Your task to perform on an android device: change notifications settings Image 0: 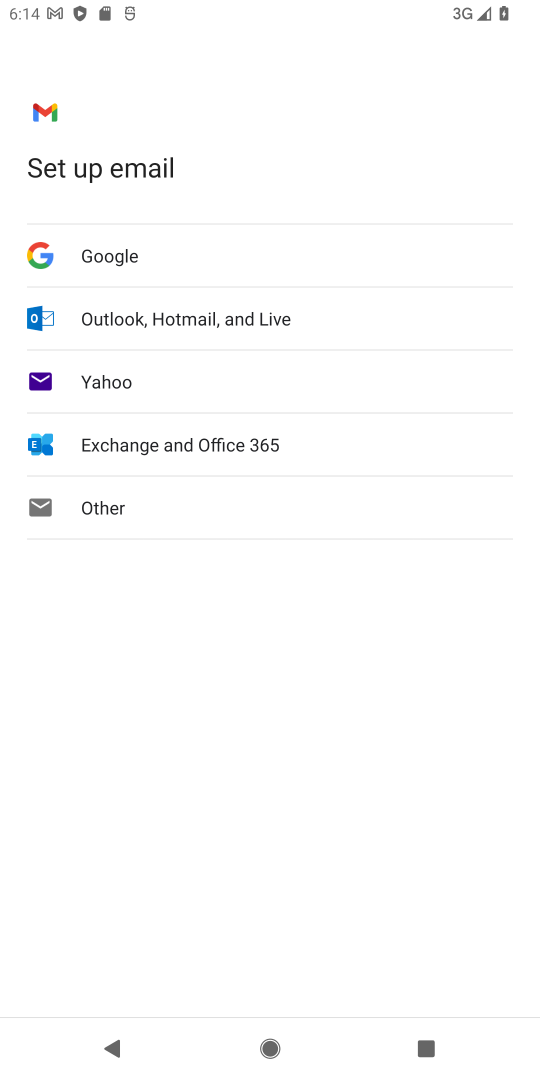
Step 0: press back button
Your task to perform on an android device: change notifications settings Image 1: 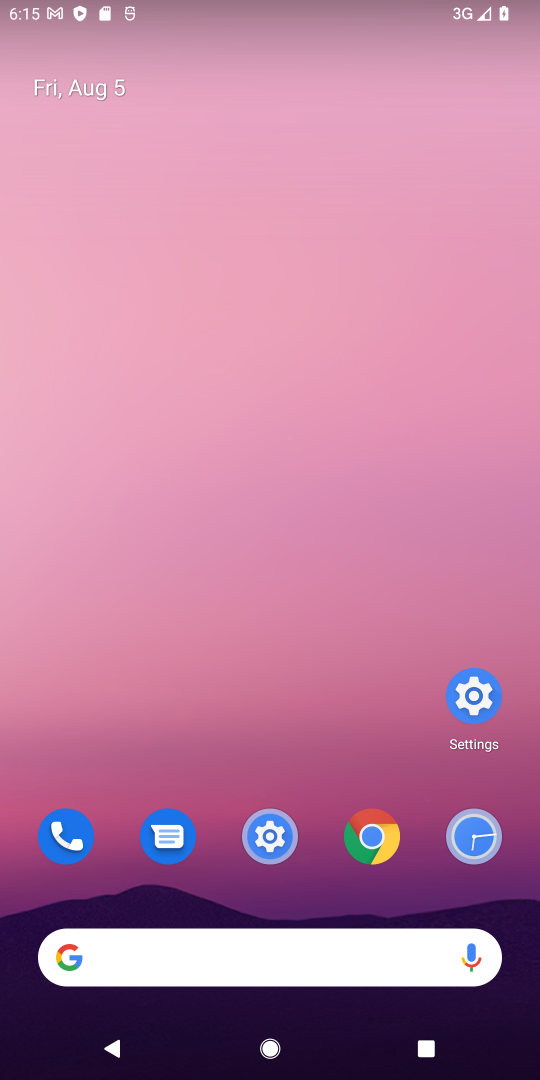
Step 1: drag from (201, 668) to (163, 195)
Your task to perform on an android device: change notifications settings Image 2: 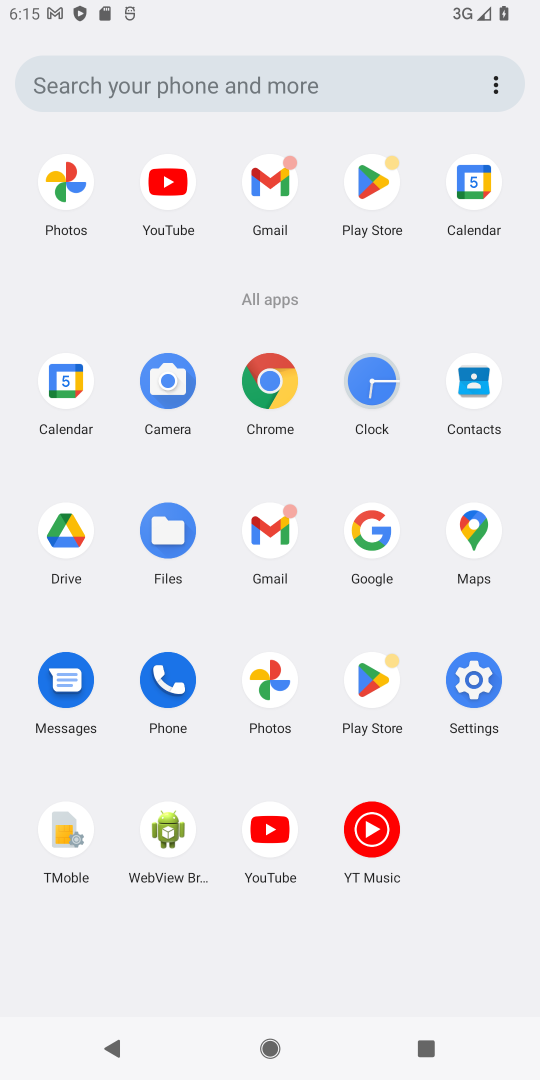
Step 2: drag from (182, 548) to (168, 157)
Your task to perform on an android device: change notifications settings Image 3: 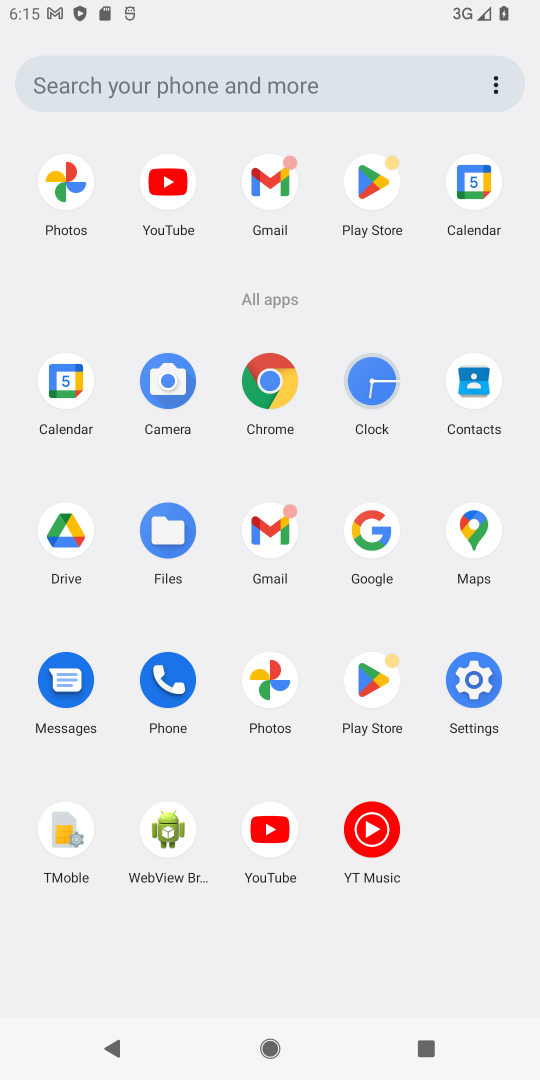
Step 3: click (471, 687)
Your task to perform on an android device: change notifications settings Image 4: 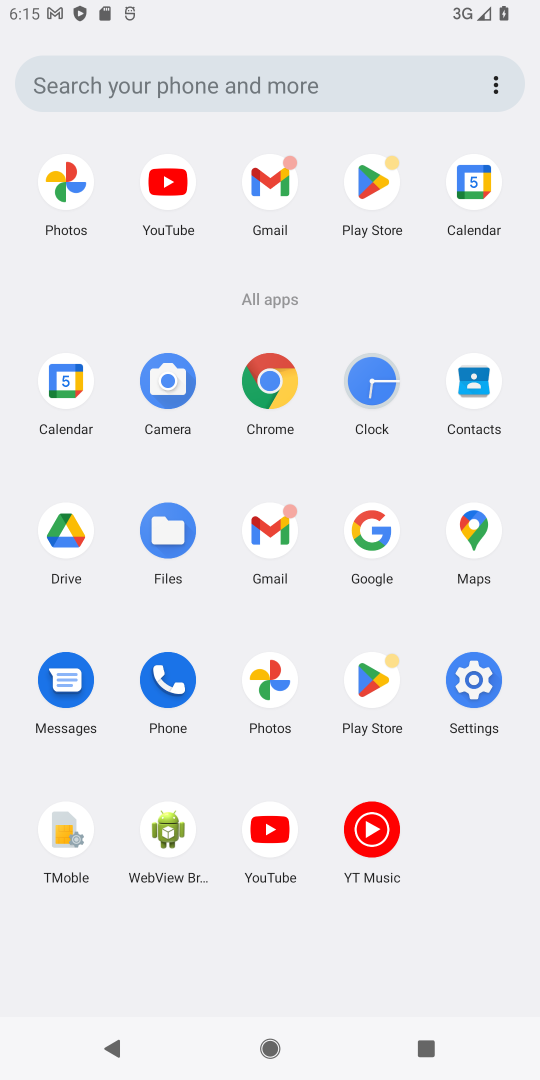
Step 4: click (473, 667)
Your task to perform on an android device: change notifications settings Image 5: 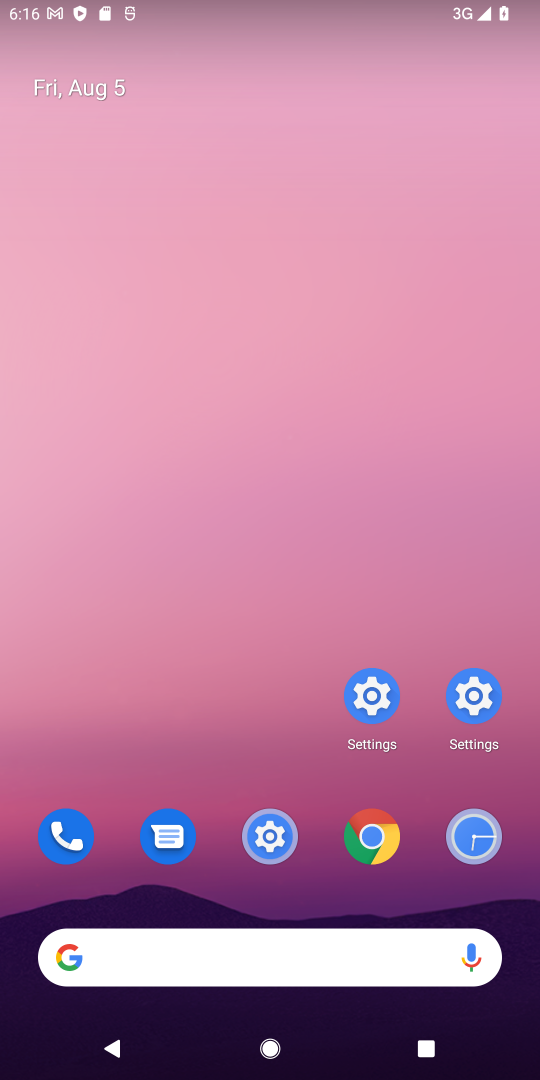
Step 5: drag from (197, 4) to (188, 92)
Your task to perform on an android device: change notifications settings Image 6: 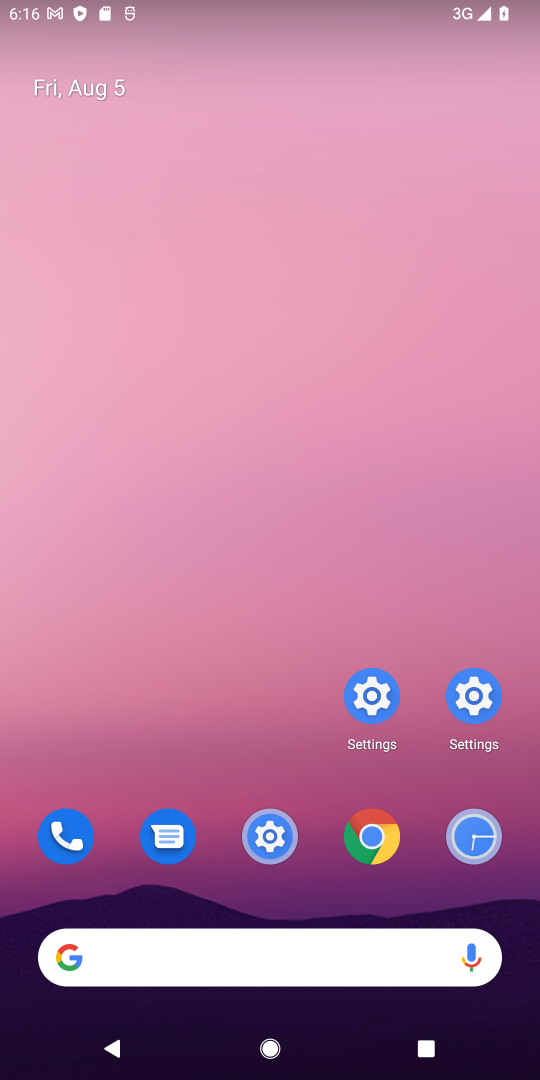
Step 6: drag from (342, 873) to (455, 382)
Your task to perform on an android device: change notifications settings Image 7: 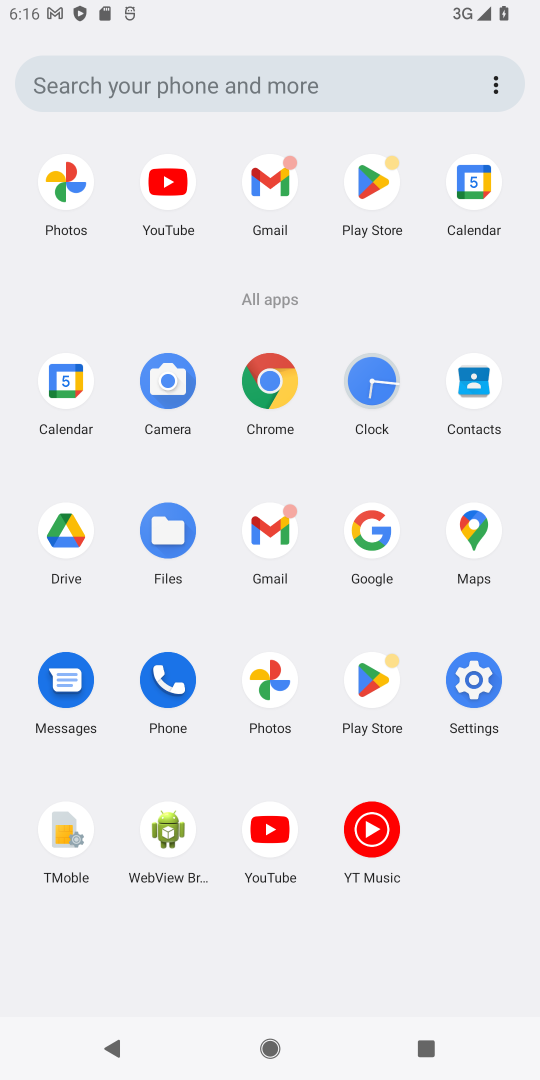
Step 7: drag from (345, 844) to (165, 131)
Your task to perform on an android device: change notifications settings Image 8: 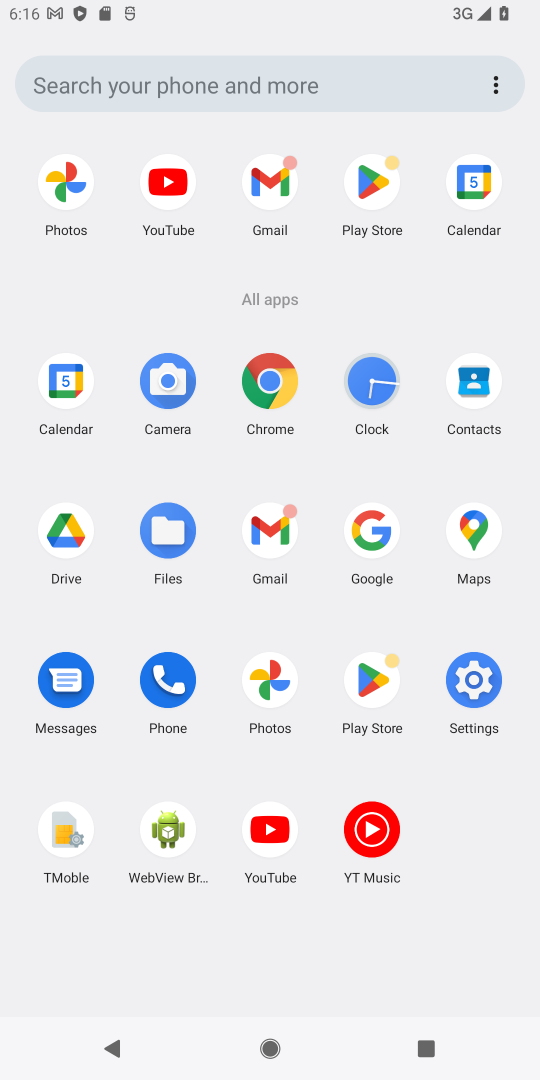
Step 8: drag from (217, 847) to (247, 187)
Your task to perform on an android device: change notifications settings Image 9: 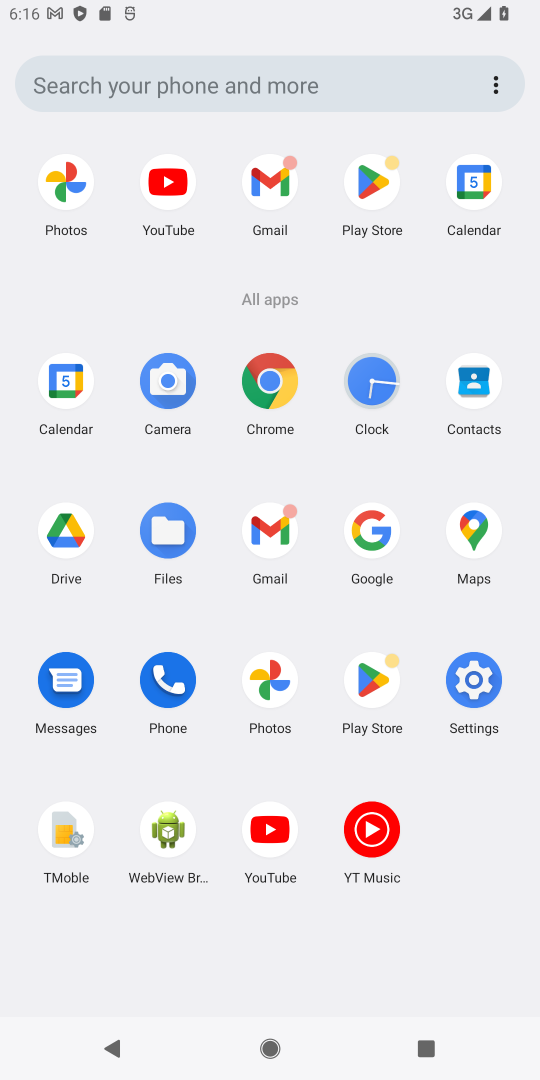
Step 9: click (469, 677)
Your task to perform on an android device: change notifications settings Image 10: 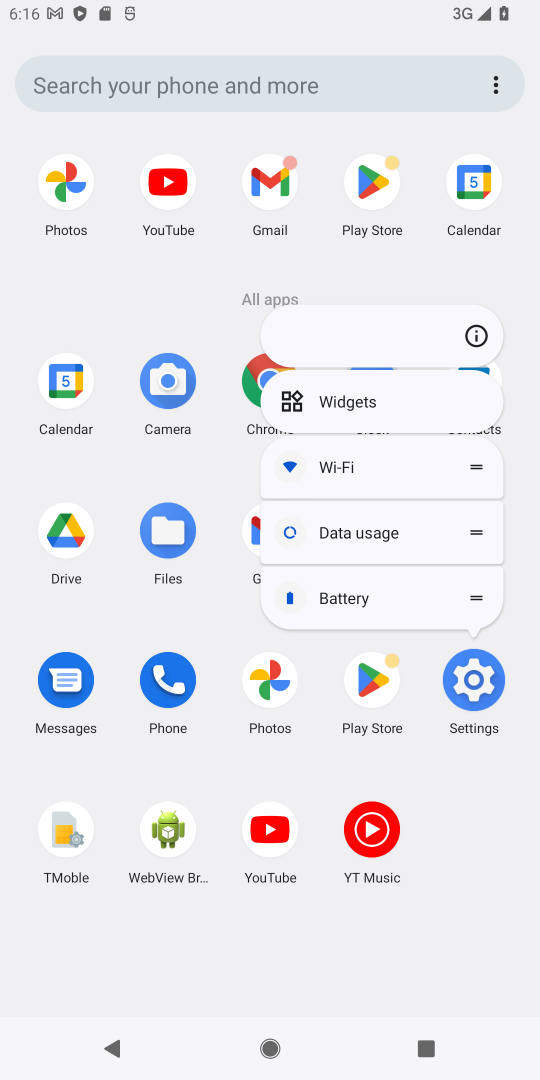
Step 10: click (468, 669)
Your task to perform on an android device: change notifications settings Image 11: 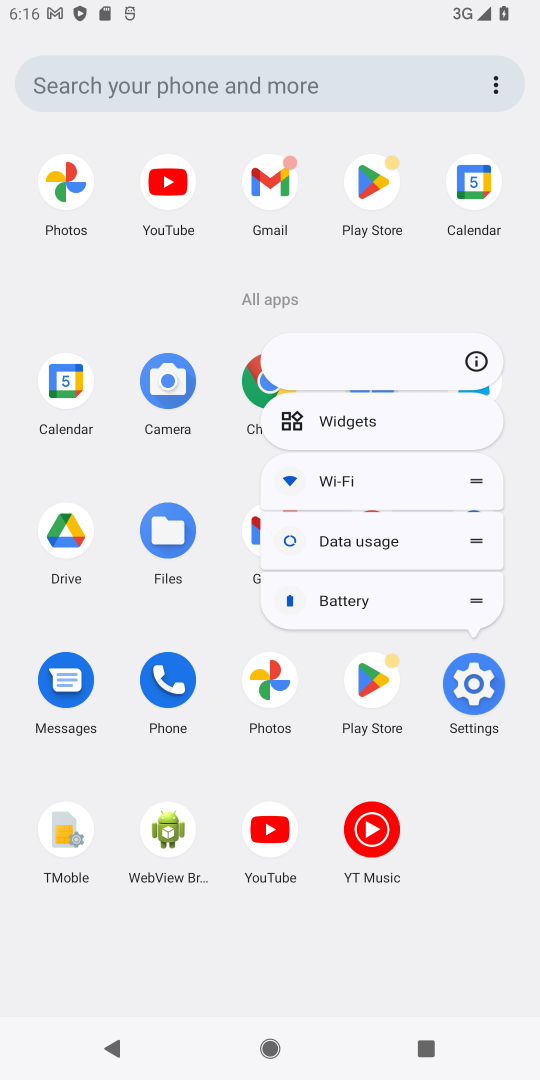
Step 11: click (476, 689)
Your task to perform on an android device: change notifications settings Image 12: 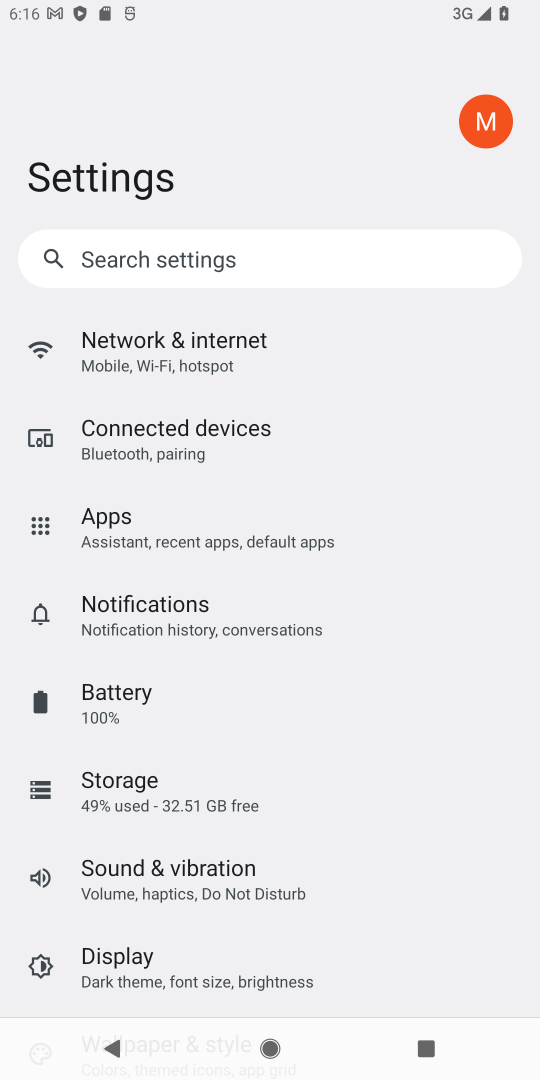
Step 12: click (469, 690)
Your task to perform on an android device: change notifications settings Image 13: 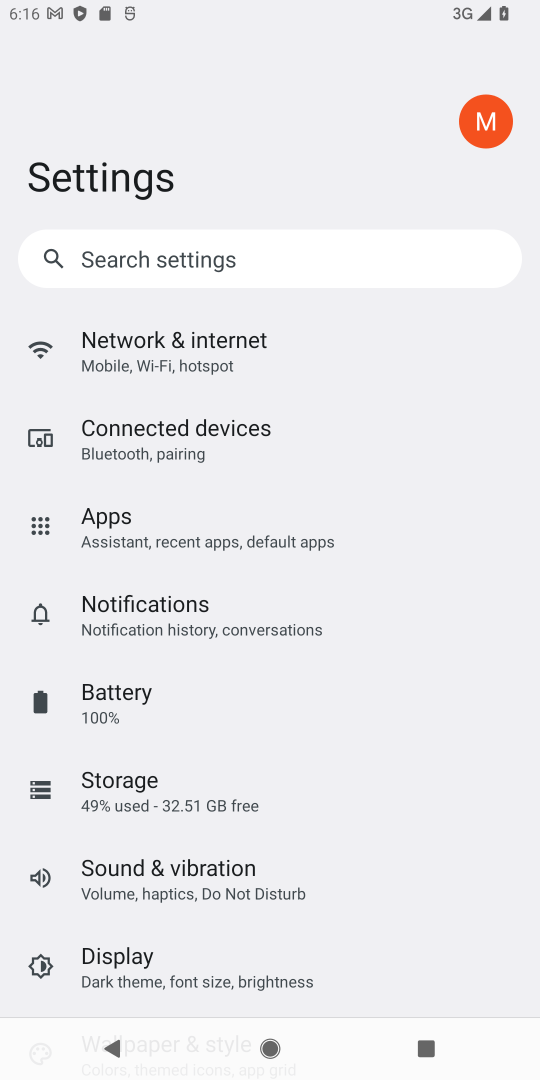
Step 13: click (134, 606)
Your task to perform on an android device: change notifications settings Image 14: 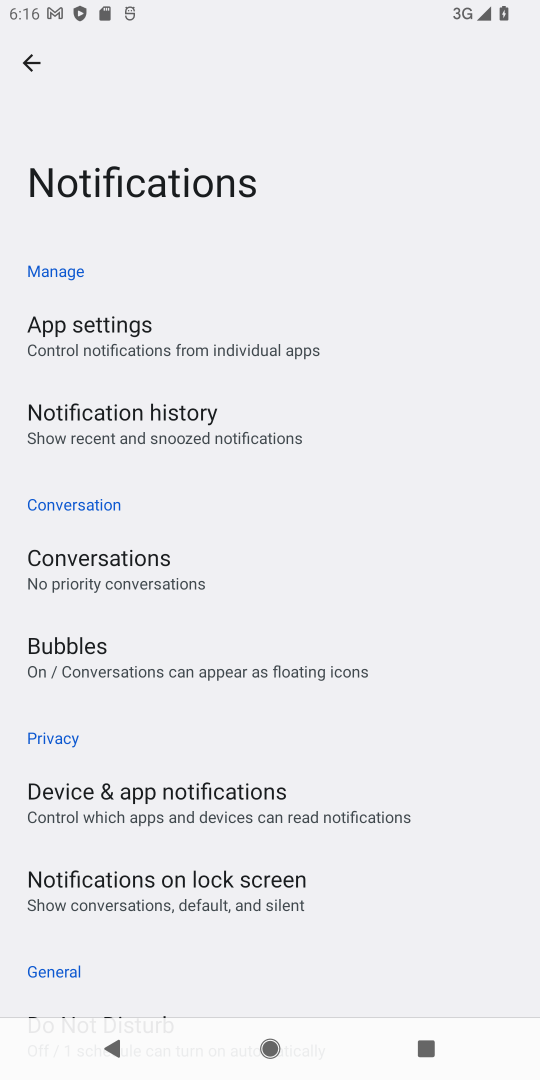
Step 14: click (27, 63)
Your task to perform on an android device: change notifications settings Image 15: 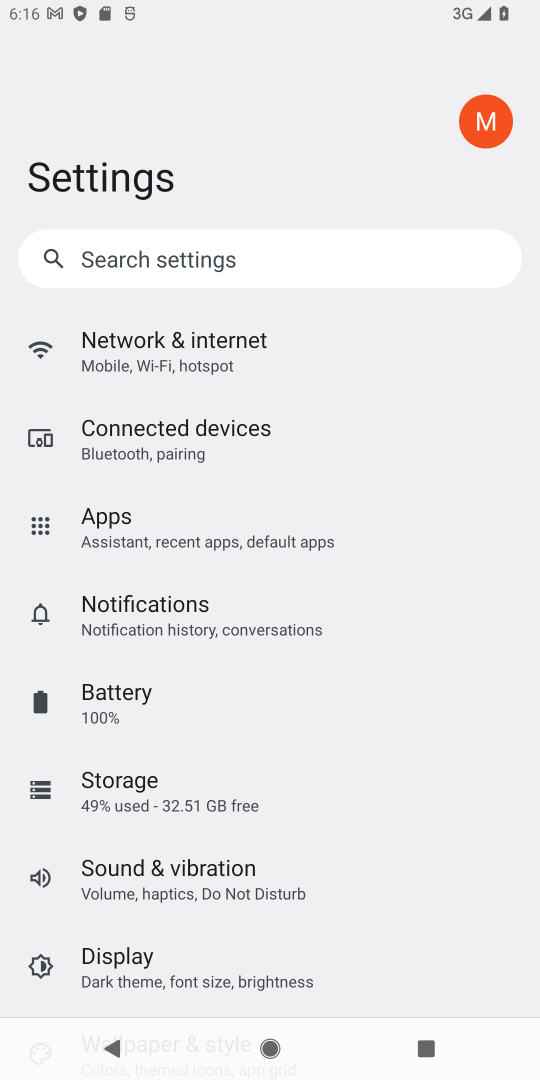
Step 15: click (153, 614)
Your task to perform on an android device: change notifications settings Image 16: 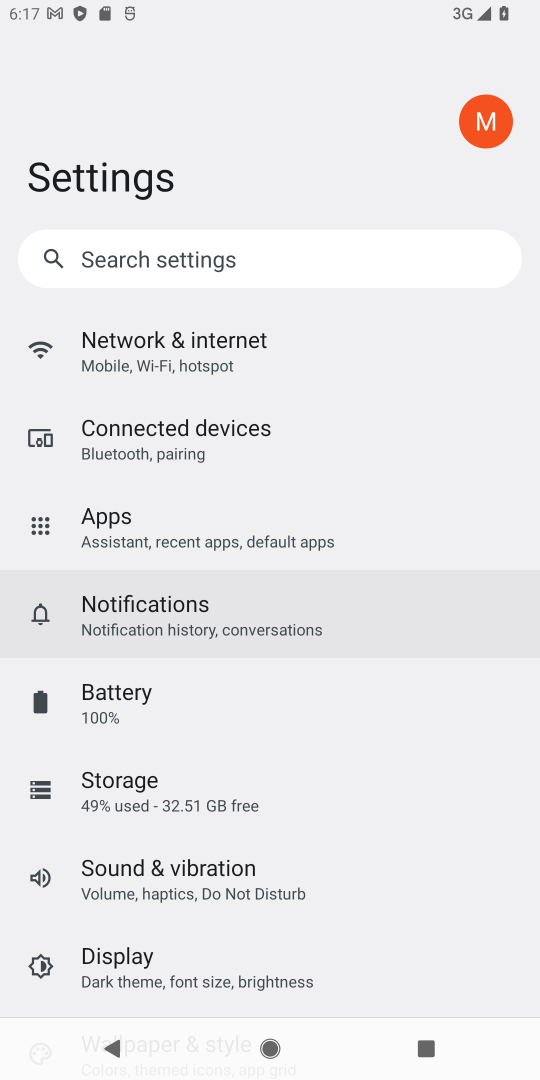
Step 16: click (151, 616)
Your task to perform on an android device: change notifications settings Image 17: 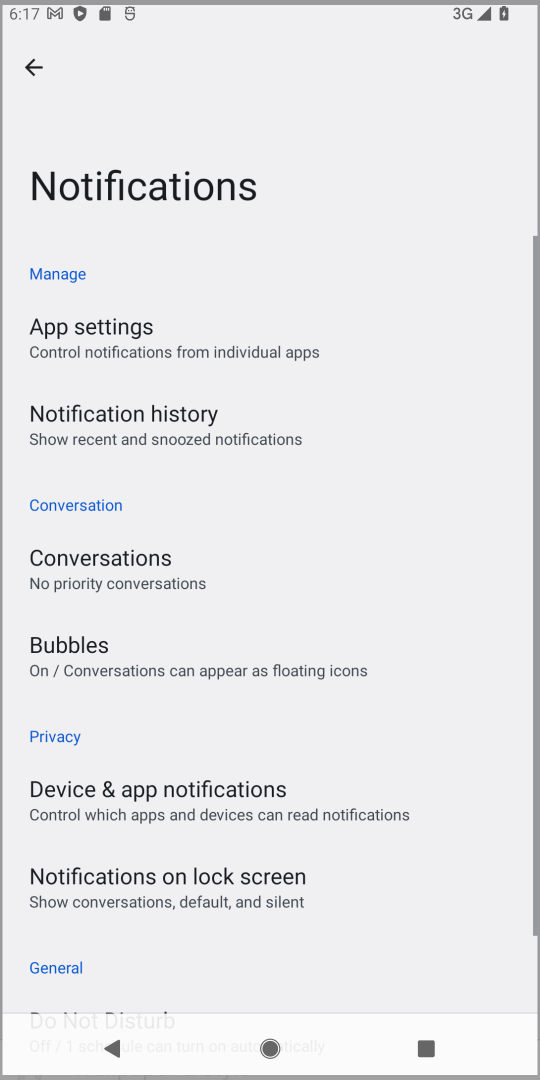
Step 17: click (152, 618)
Your task to perform on an android device: change notifications settings Image 18: 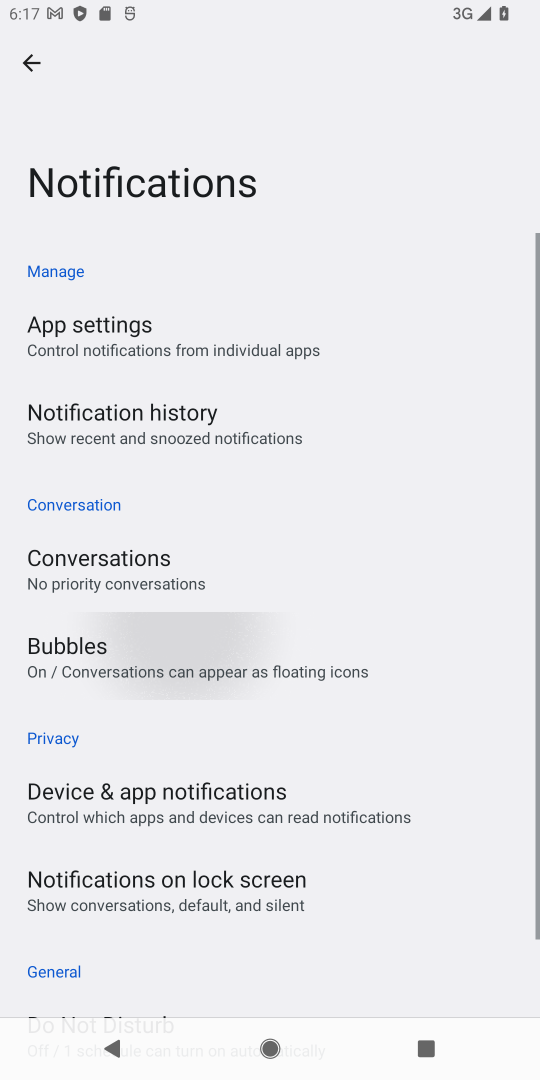
Step 18: click (152, 618)
Your task to perform on an android device: change notifications settings Image 19: 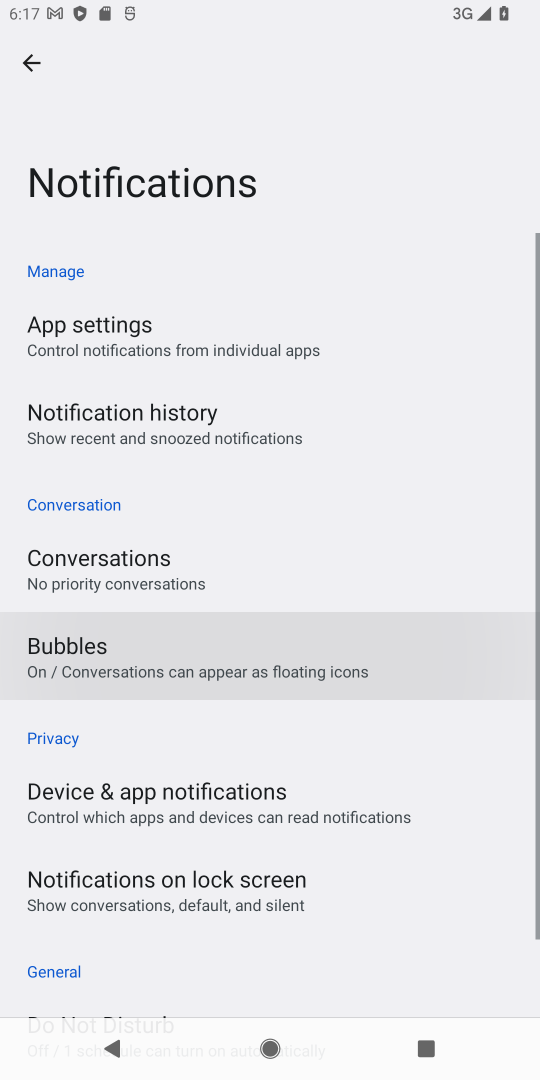
Step 19: click (153, 618)
Your task to perform on an android device: change notifications settings Image 20: 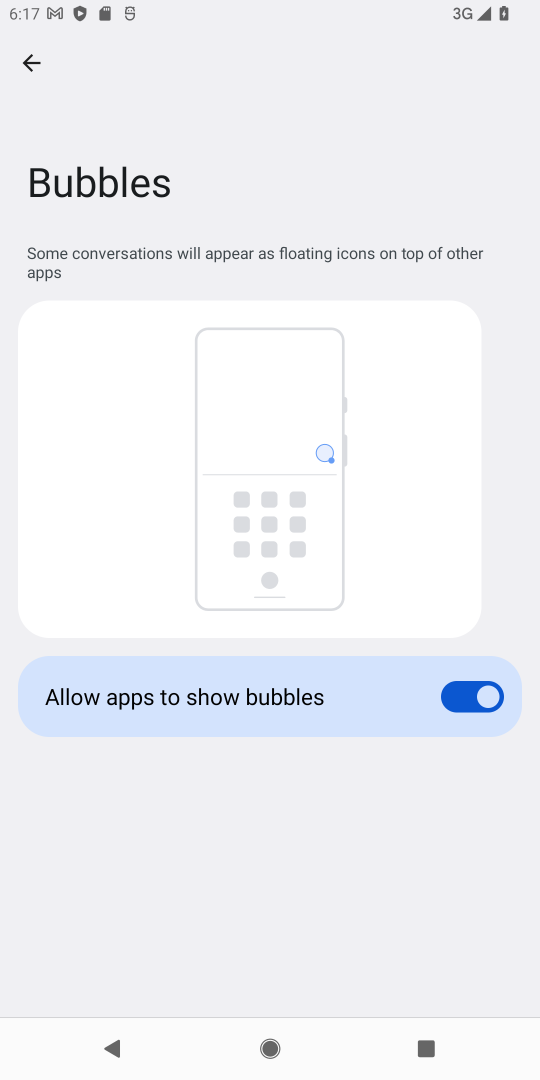
Step 20: click (153, 618)
Your task to perform on an android device: change notifications settings Image 21: 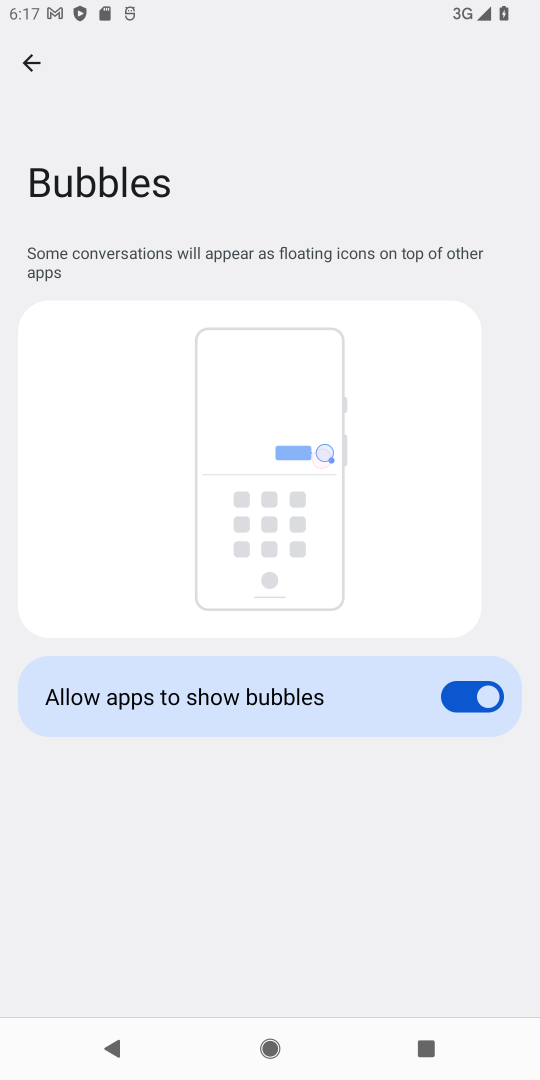
Step 21: task complete